Your task to perform on an android device: Go to settings Image 0: 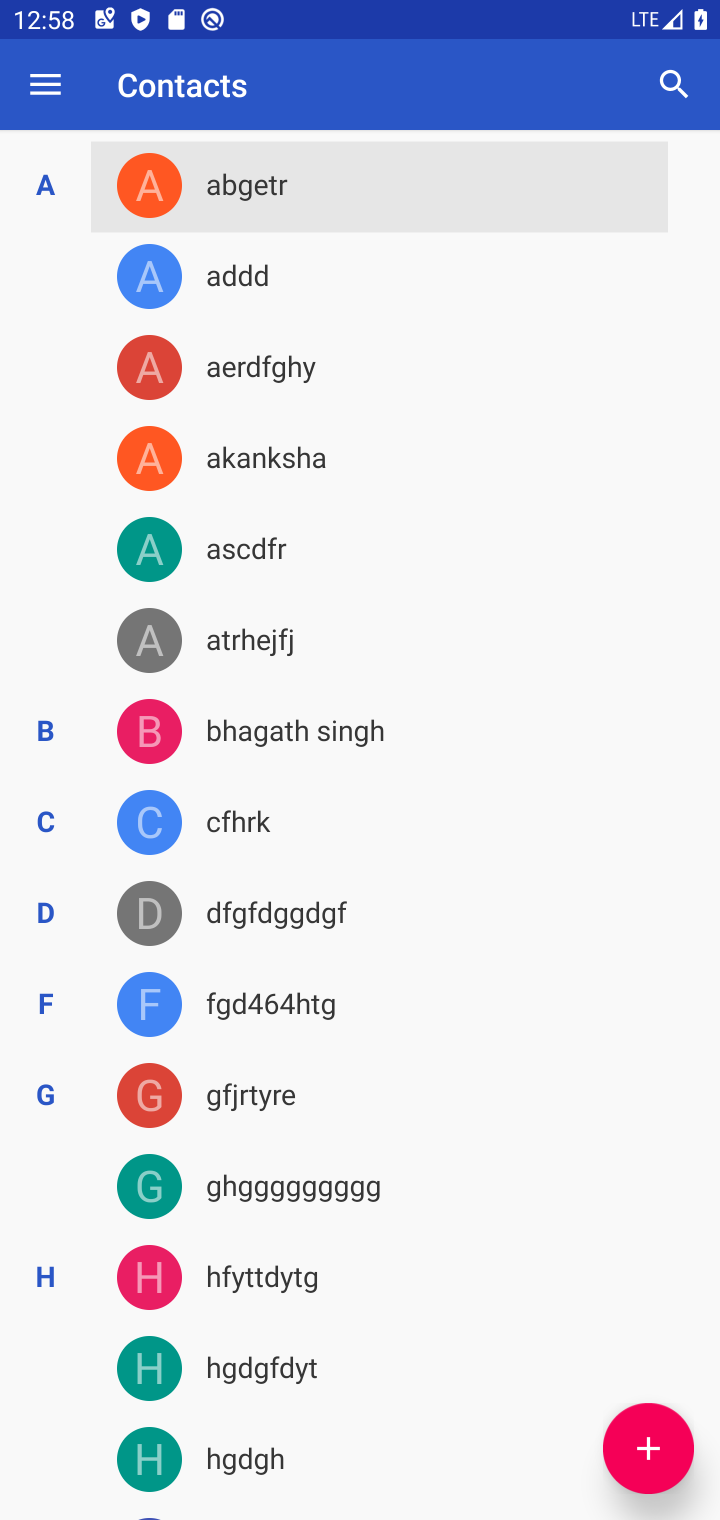
Step 0: press back button
Your task to perform on an android device: Go to settings Image 1: 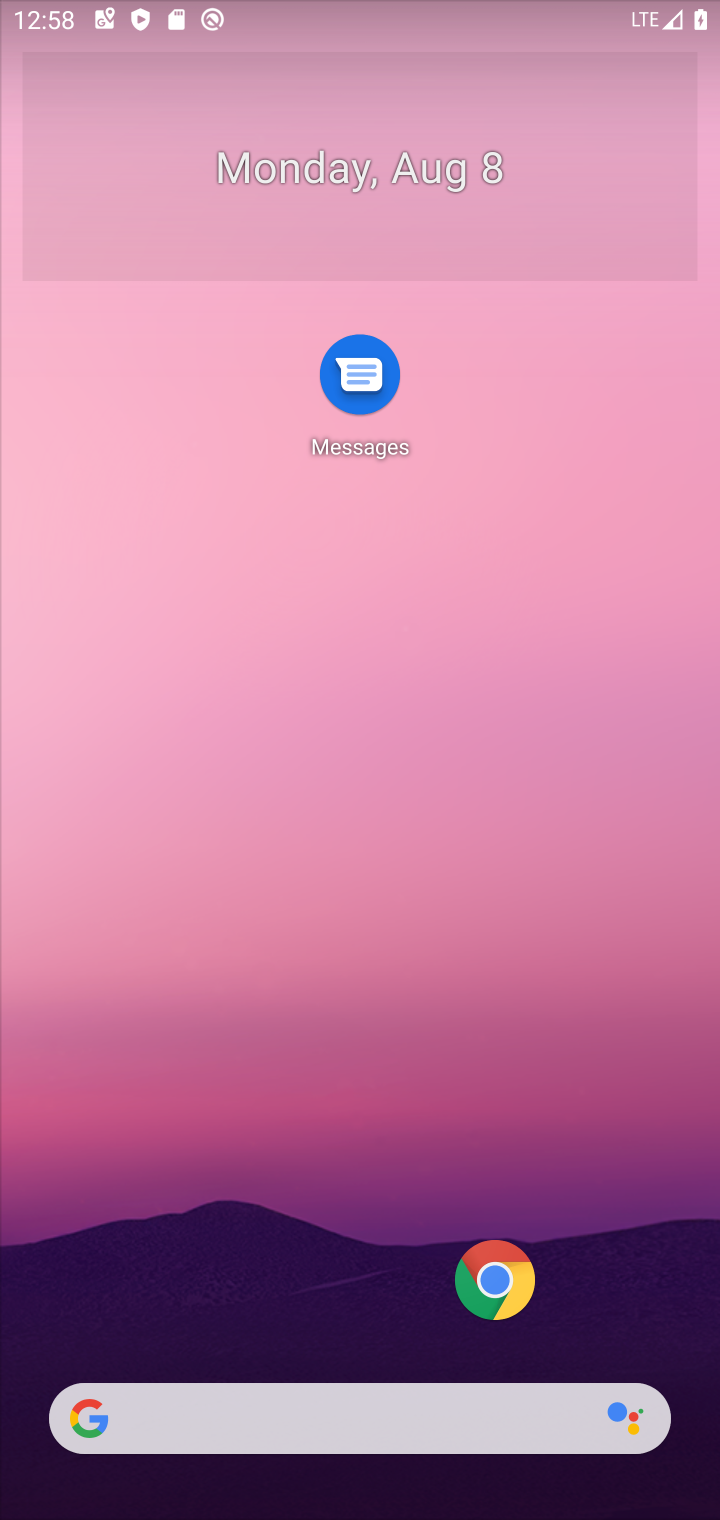
Step 1: drag from (286, 1336) to (613, 24)
Your task to perform on an android device: Go to settings Image 2: 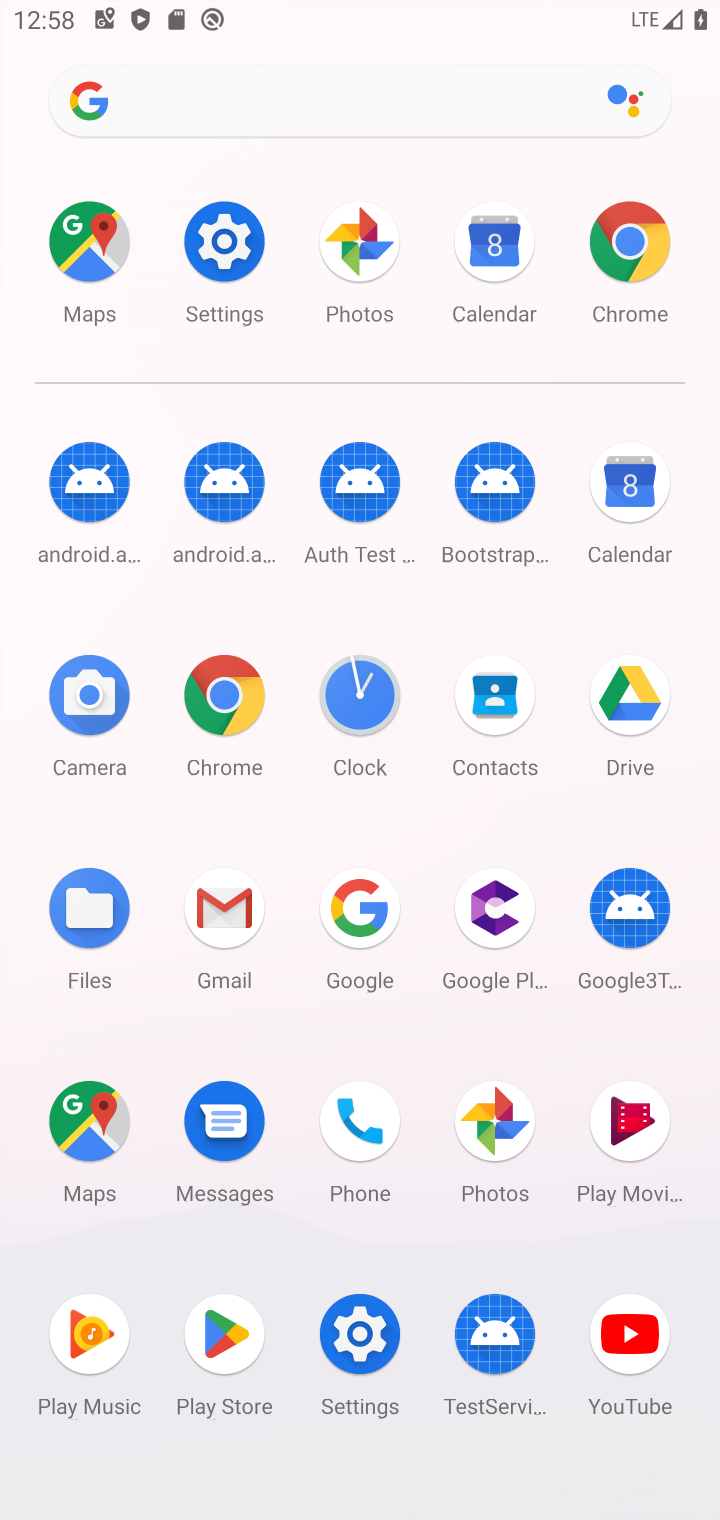
Step 2: click (202, 252)
Your task to perform on an android device: Go to settings Image 3: 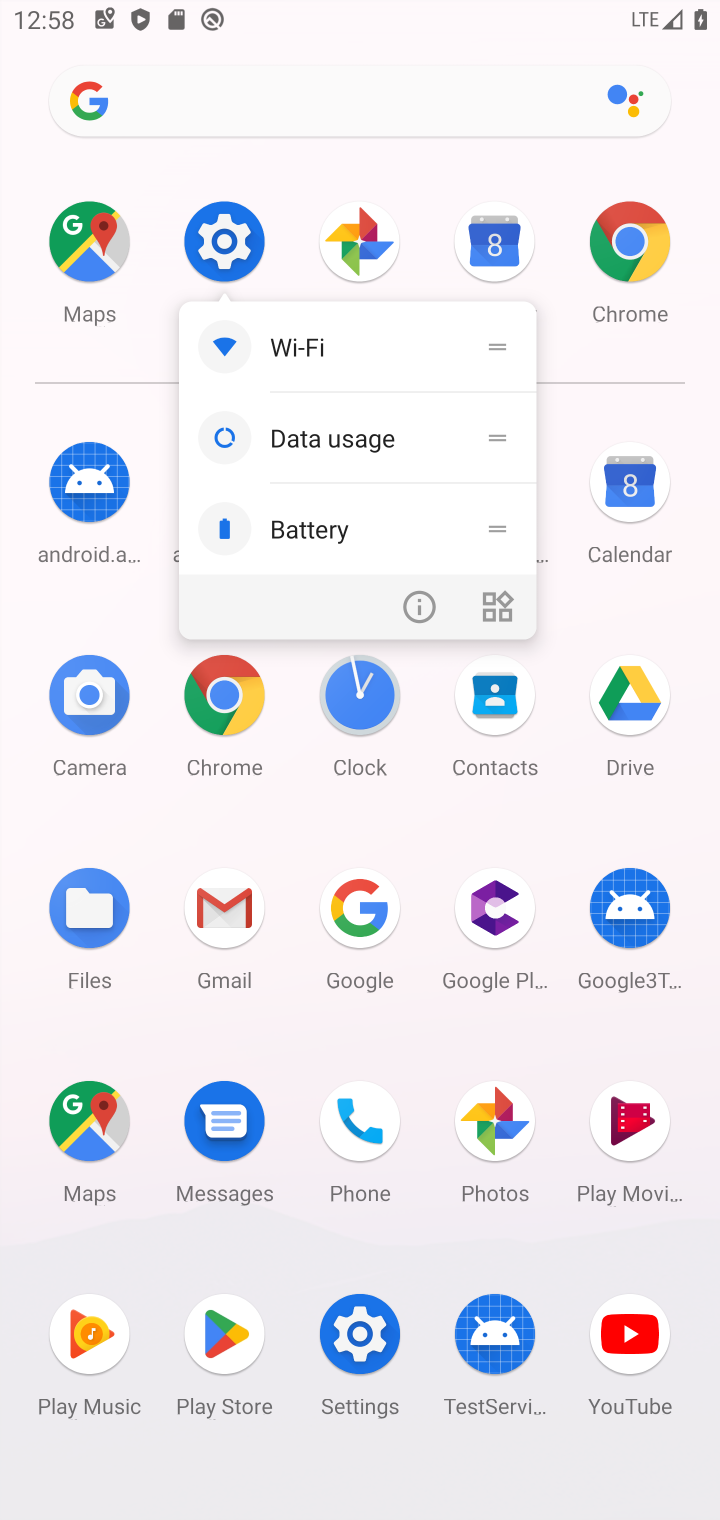
Step 3: click (212, 233)
Your task to perform on an android device: Go to settings Image 4: 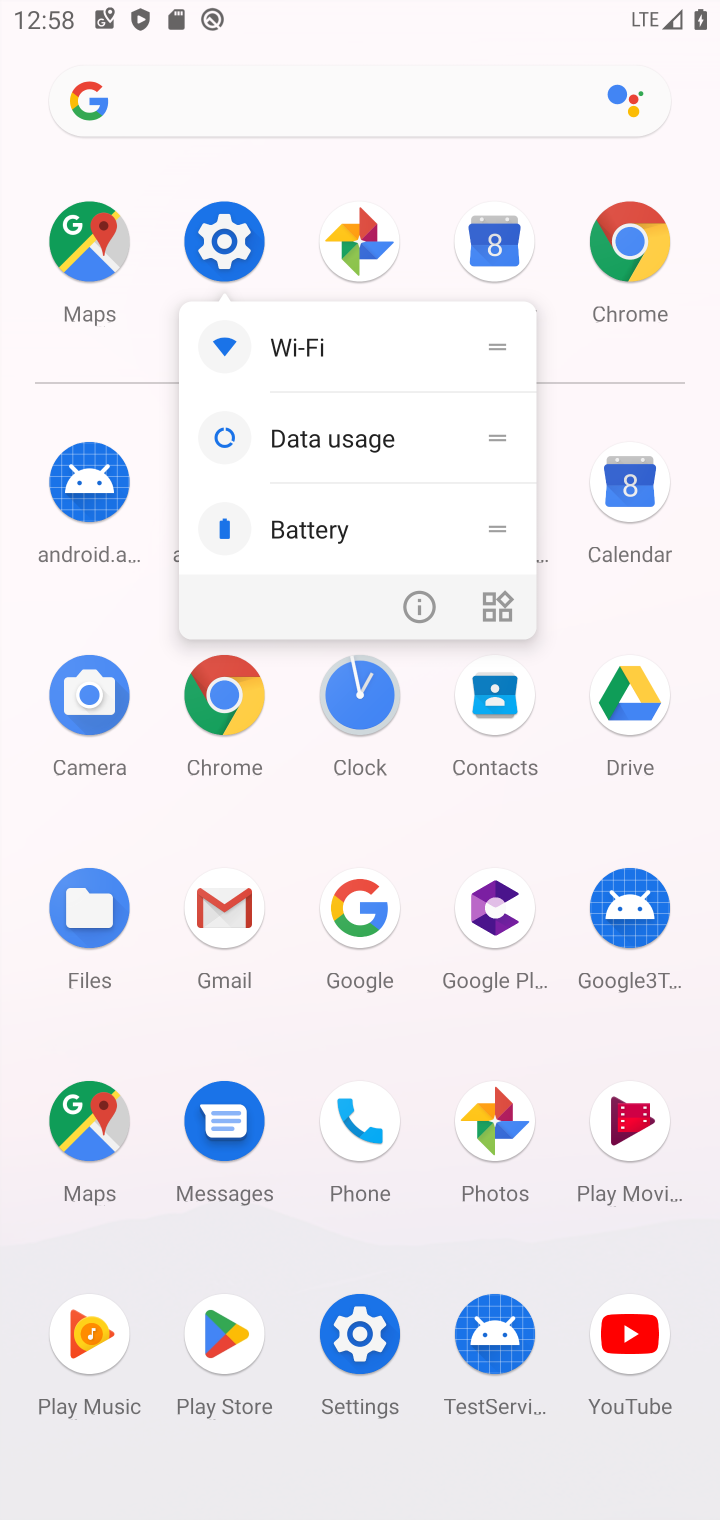
Step 4: click (230, 213)
Your task to perform on an android device: Go to settings Image 5: 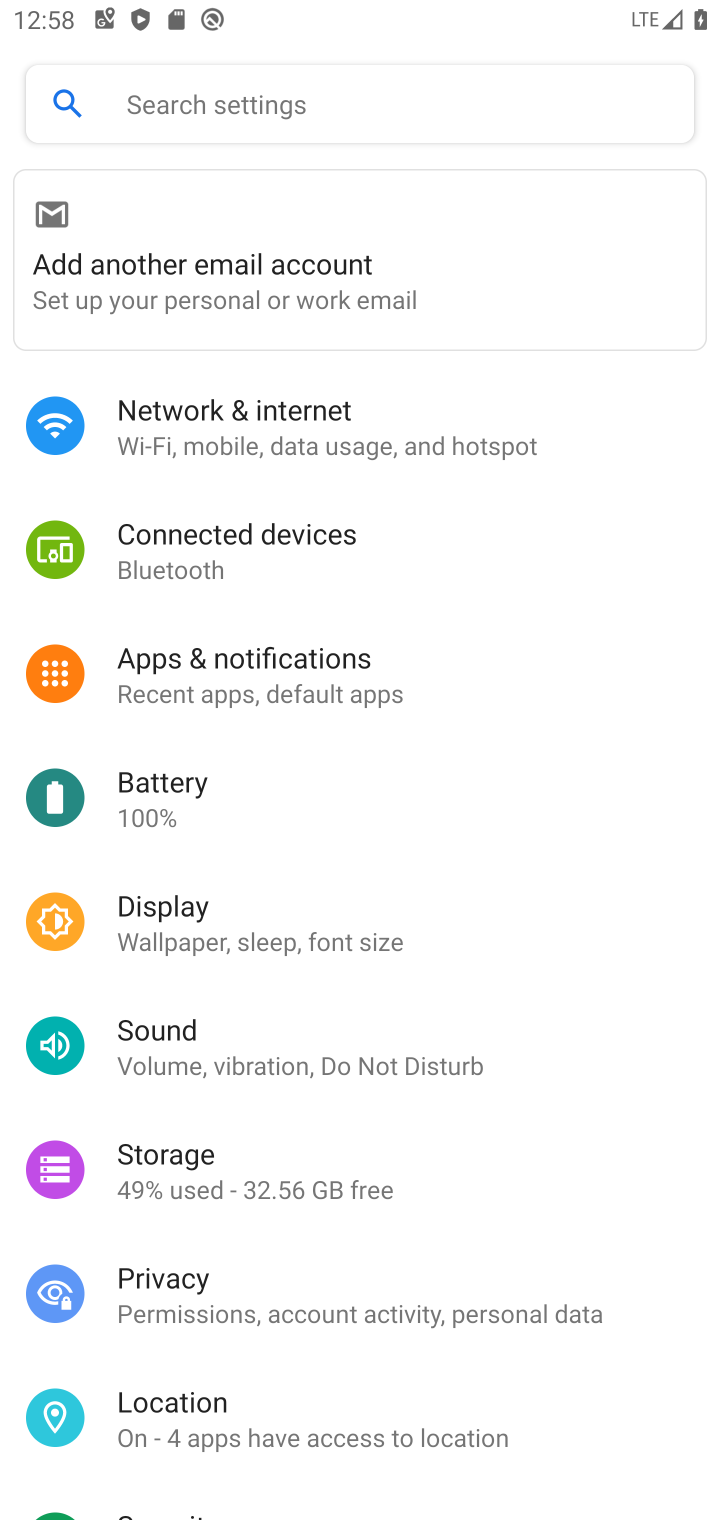
Step 5: task complete